Your task to perform on an android device: empty trash in the gmail app Image 0: 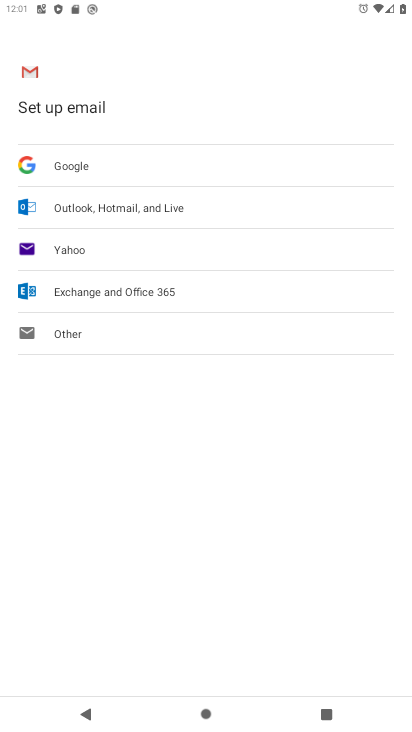
Step 0: press home button
Your task to perform on an android device: empty trash in the gmail app Image 1: 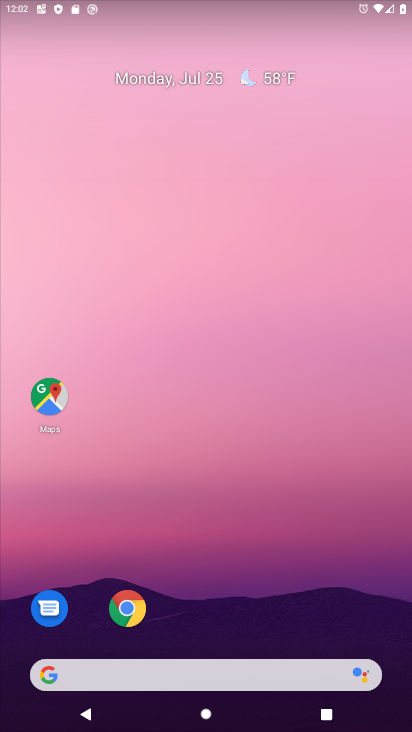
Step 1: drag from (186, 591) to (187, 203)
Your task to perform on an android device: empty trash in the gmail app Image 2: 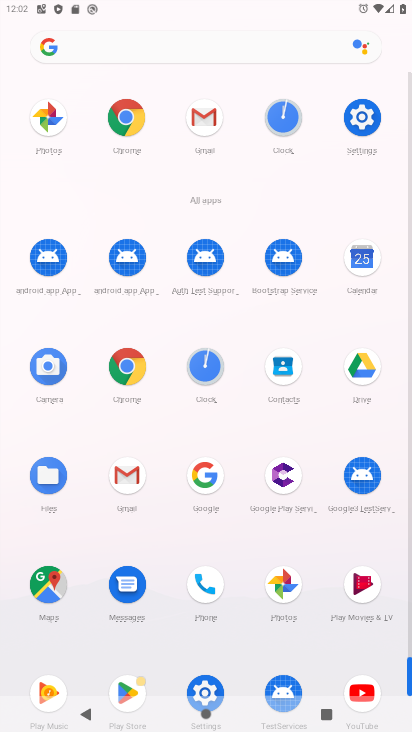
Step 2: click (130, 488)
Your task to perform on an android device: empty trash in the gmail app Image 3: 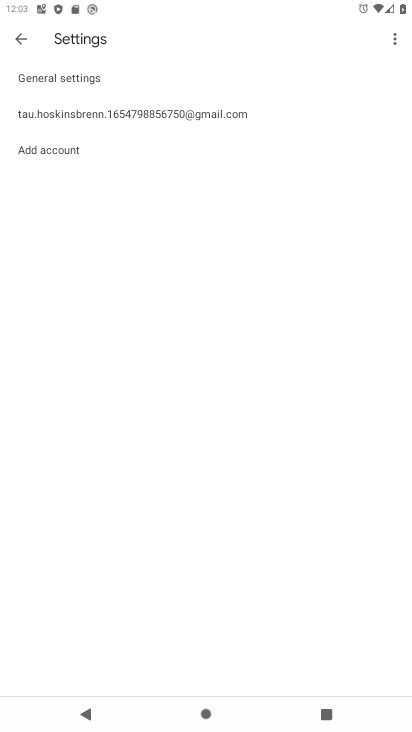
Step 3: click (23, 40)
Your task to perform on an android device: empty trash in the gmail app Image 4: 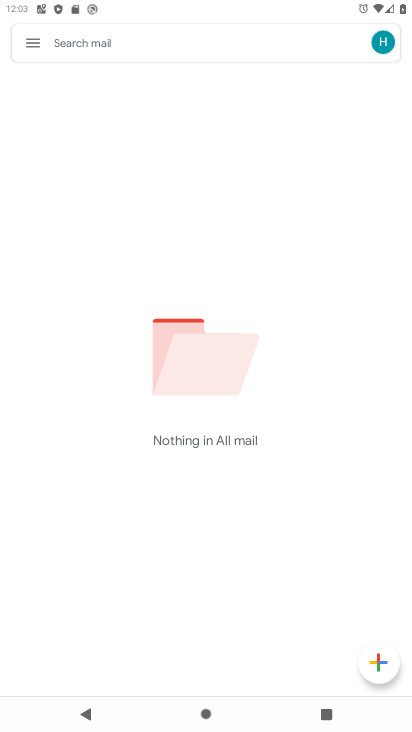
Step 4: click (38, 52)
Your task to perform on an android device: empty trash in the gmail app Image 5: 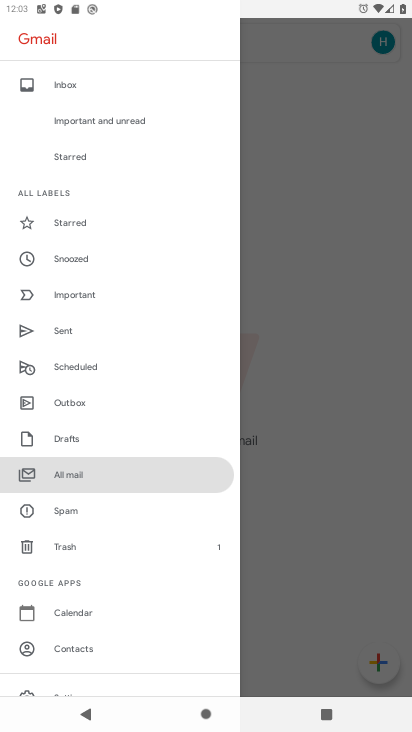
Step 5: click (71, 543)
Your task to perform on an android device: empty trash in the gmail app Image 6: 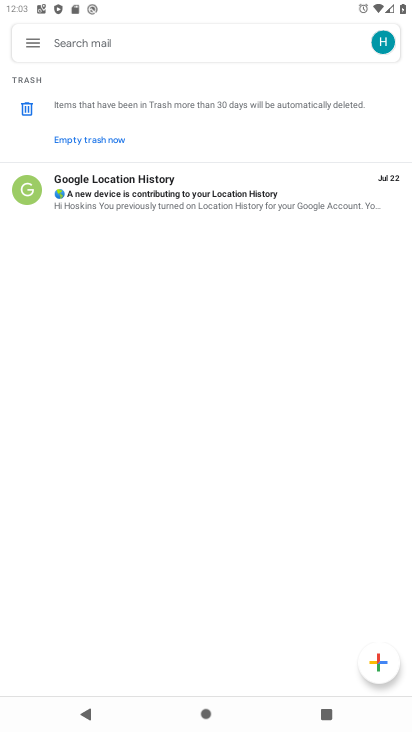
Step 6: click (111, 138)
Your task to perform on an android device: empty trash in the gmail app Image 7: 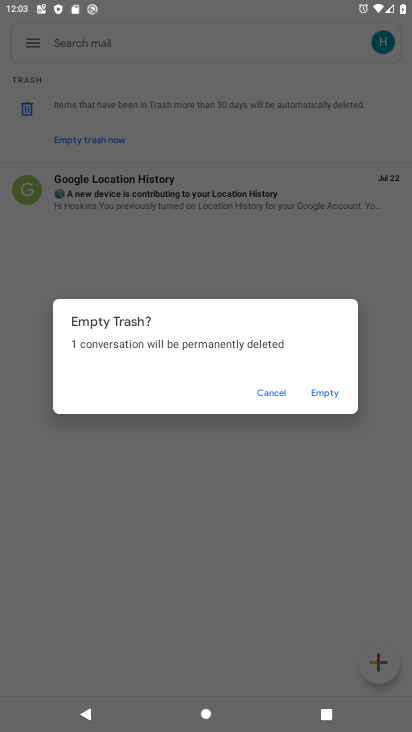
Step 7: click (331, 391)
Your task to perform on an android device: empty trash in the gmail app Image 8: 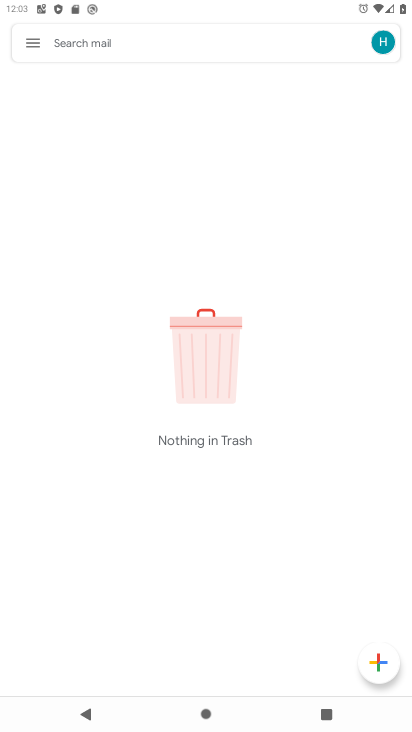
Step 8: task complete